Your task to perform on an android device: Open notification settings Image 0: 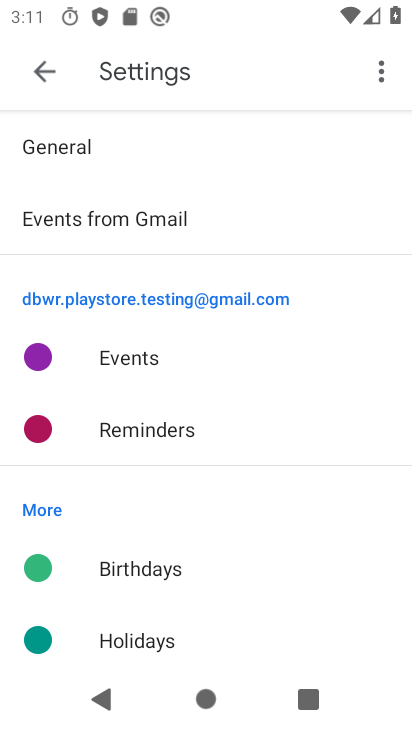
Step 0: press home button
Your task to perform on an android device: Open notification settings Image 1: 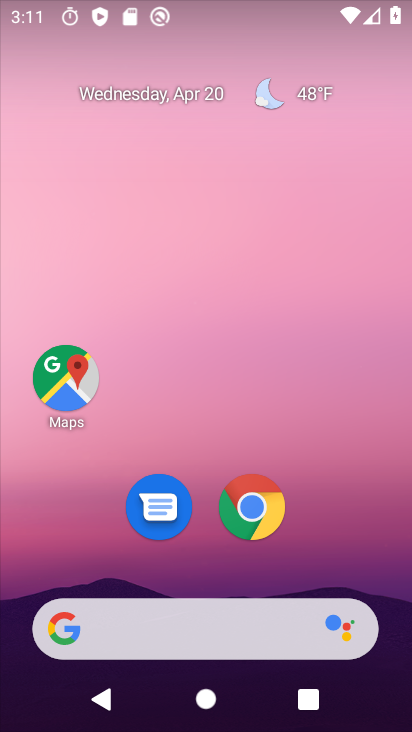
Step 1: drag from (201, 612) to (224, 204)
Your task to perform on an android device: Open notification settings Image 2: 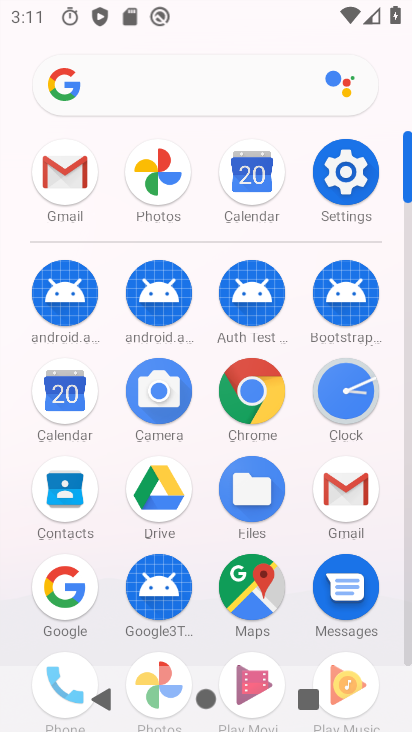
Step 2: click (334, 198)
Your task to perform on an android device: Open notification settings Image 3: 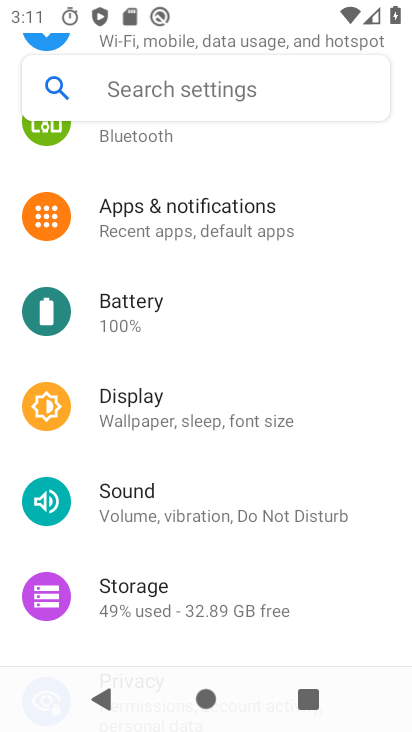
Step 3: click (227, 233)
Your task to perform on an android device: Open notification settings Image 4: 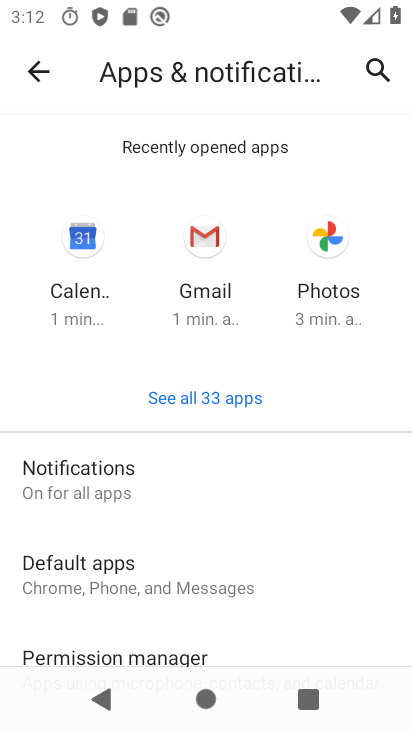
Step 4: task complete